Your task to perform on an android device: Go to Reddit.com Image 0: 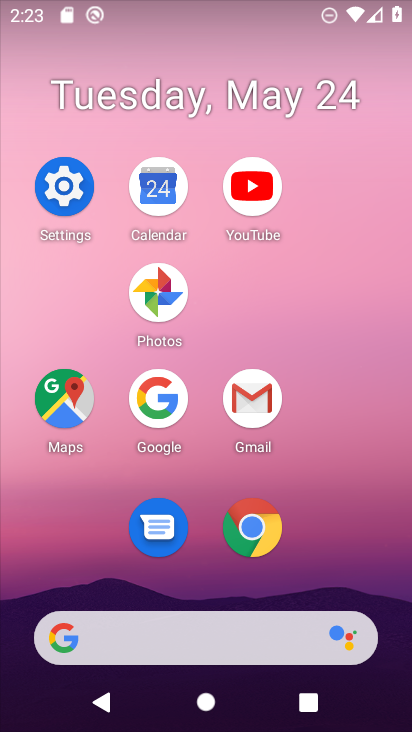
Step 0: click (252, 537)
Your task to perform on an android device: Go to Reddit.com Image 1: 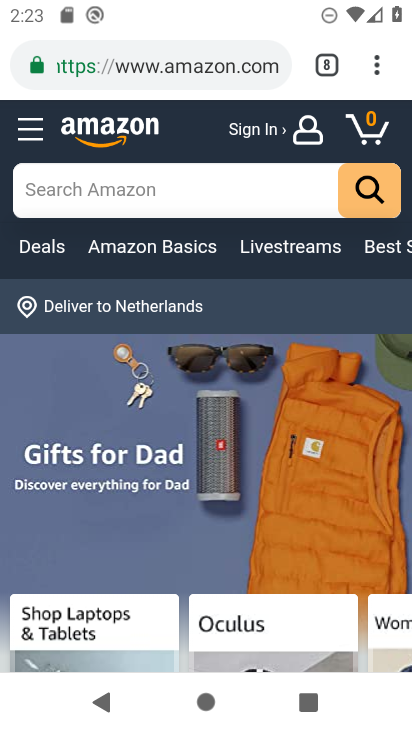
Step 1: click (316, 66)
Your task to perform on an android device: Go to Reddit.com Image 2: 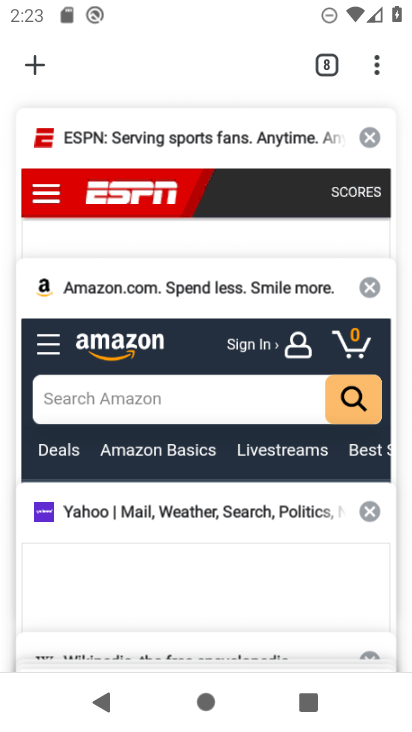
Step 2: drag from (174, 486) to (168, 144)
Your task to perform on an android device: Go to Reddit.com Image 3: 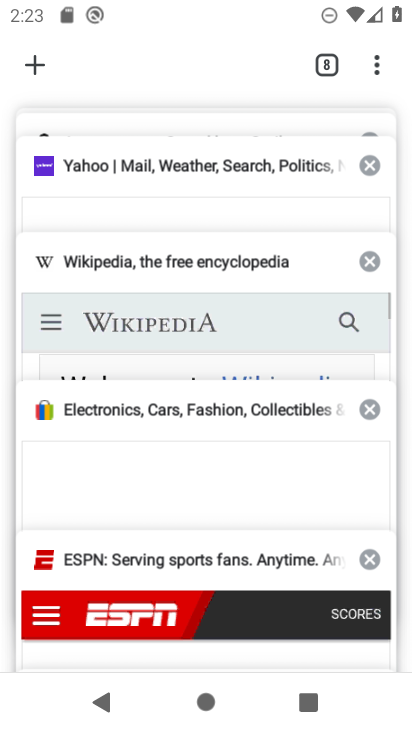
Step 3: drag from (215, 463) to (192, 203)
Your task to perform on an android device: Go to Reddit.com Image 4: 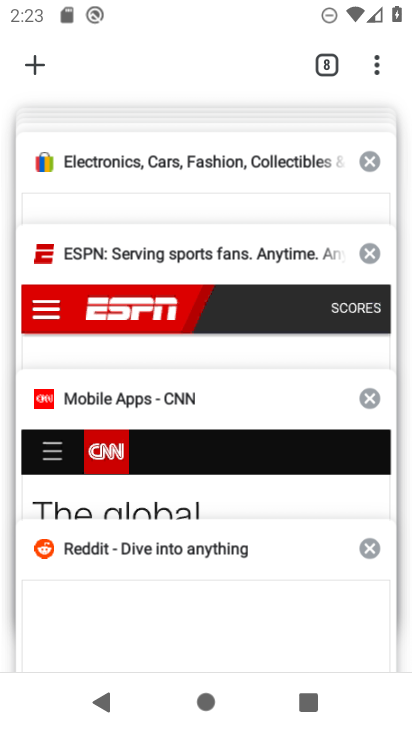
Step 4: drag from (204, 480) to (181, 181)
Your task to perform on an android device: Go to Reddit.com Image 5: 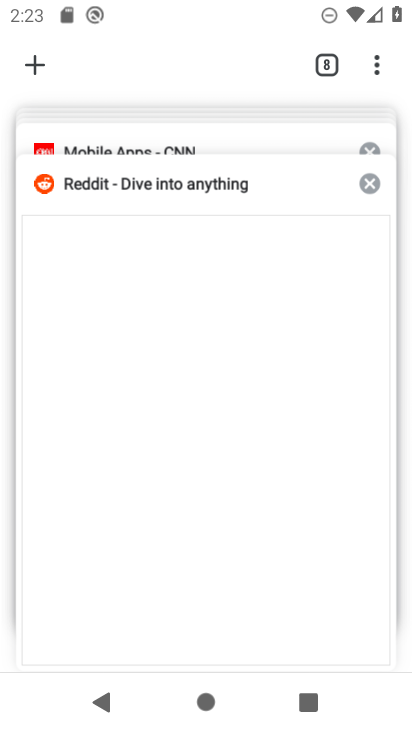
Step 5: click (150, 323)
Your task to perform on an android device: Go to Reddit.com Image 6: 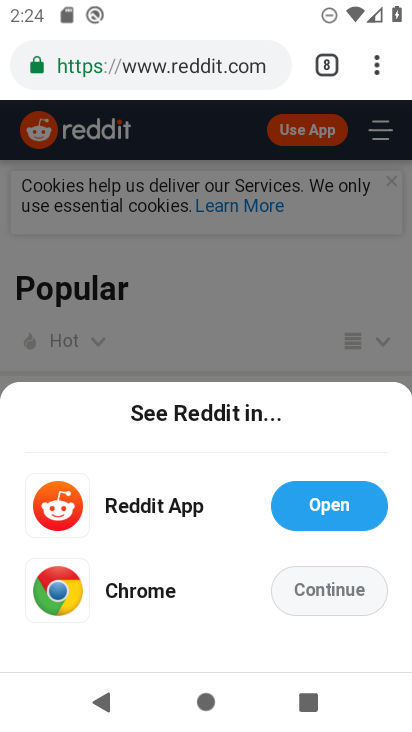
Step 6: task complete